Your task to perform on an android device: Go to display settings Image 0: 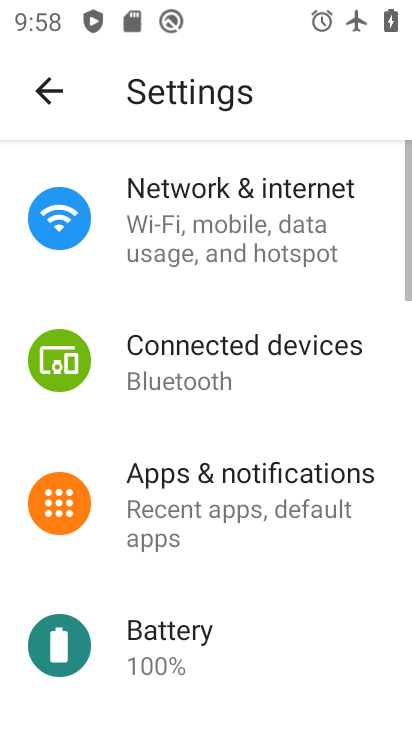
Step 0: press home button
Your task to perform on an android device: Go to display settings Image 1: 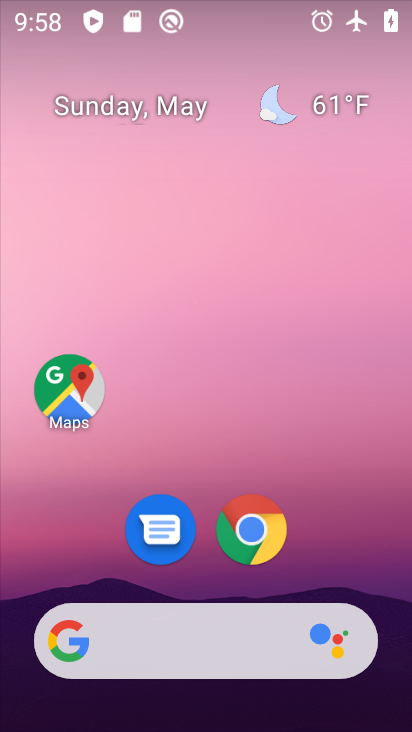
Step 1: drag from (249, 727) to (256, 13)
Your task to perform on an android device: Go to display settings Image 2: 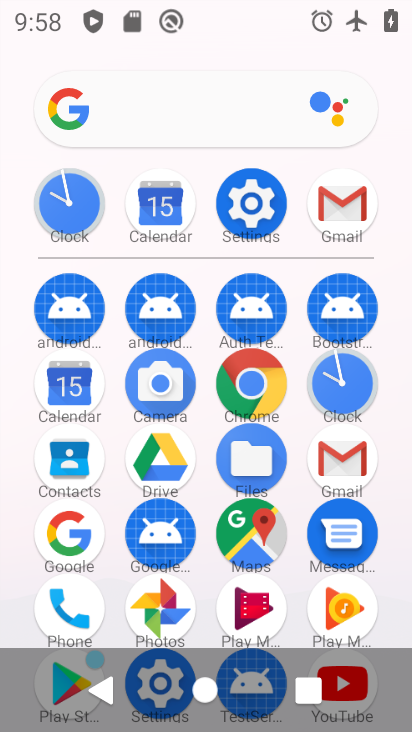
Step 2: click (246, 191)
Your task to perform on an android device: Go to display settings Image 3: 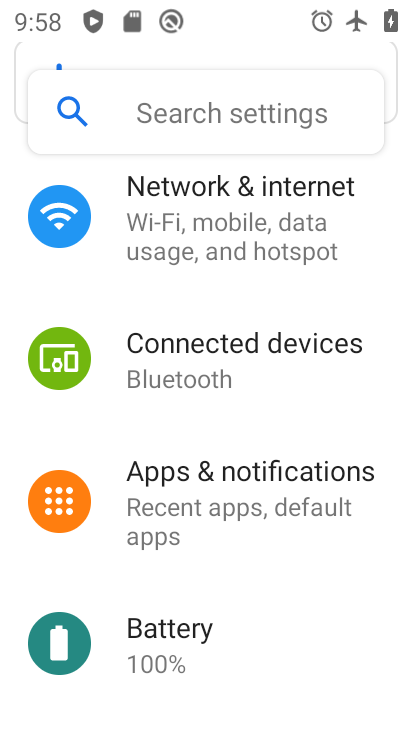
Step 3: drag from (166, 592) to (172, 139)
Your task to perform on an android device: Go to display settings Image 4: 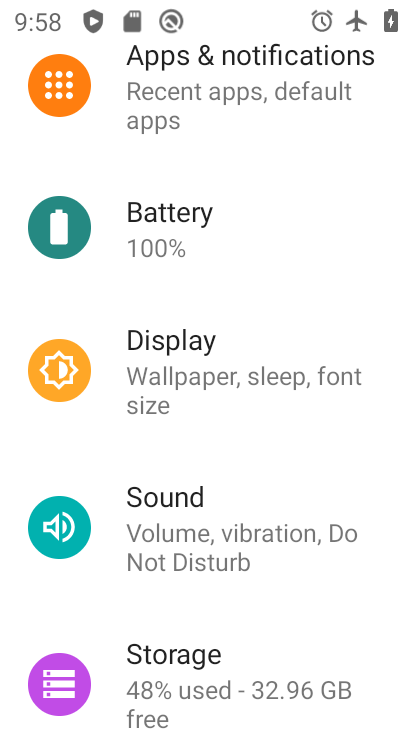
Step 4: drag from (179, 596) to (183, 365)
Your task to perform on an android device: Go to display settings Image 5: 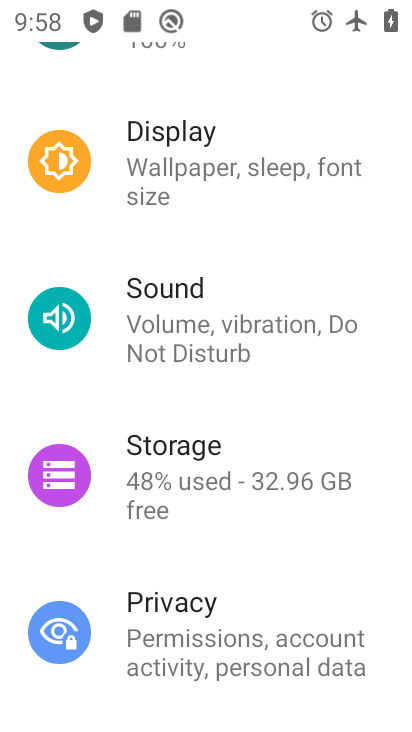
Step 5: click (157, 183)
Your task to perform on an android device: Go to display settings Image 6: 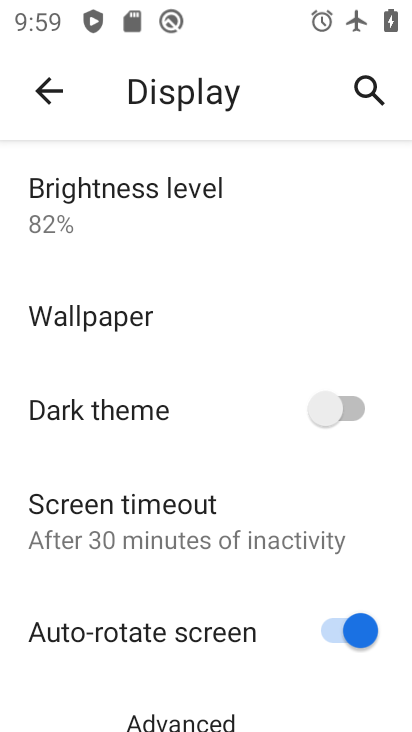
Step 6: task complete